Your task to perform on an android device: read, delete, or share a saved page in the chrome app Image 0: 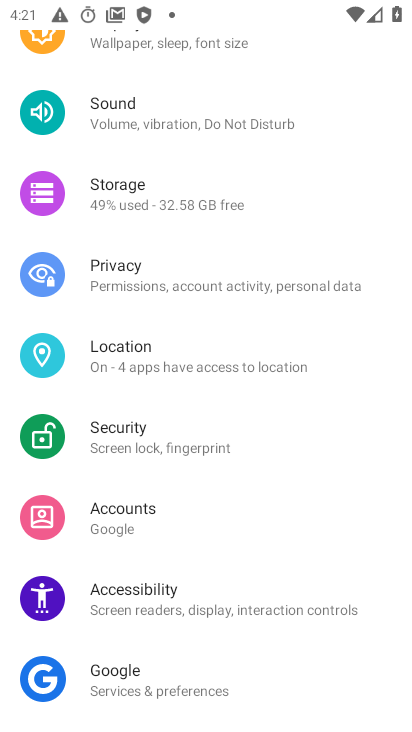
Step 0: press home button
Your task to perform on an android device: read, delete, or share a saved page in the chrome app Image 1: 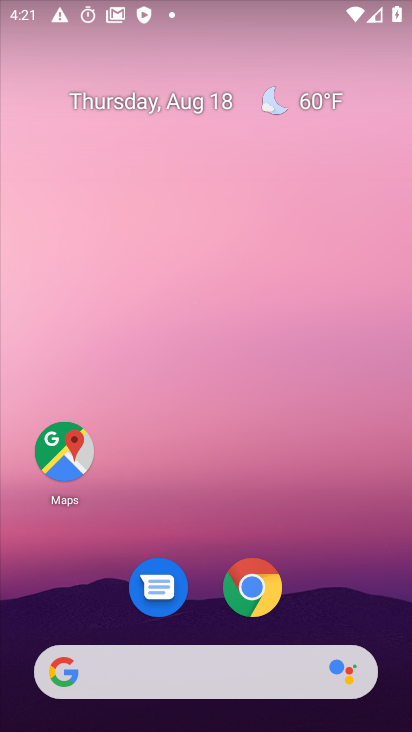
Step 1: drag from (364, 600) to (339, 96)
Your task to perform on an android device: read, delete, or share a saved page in the chrome app Image 2: 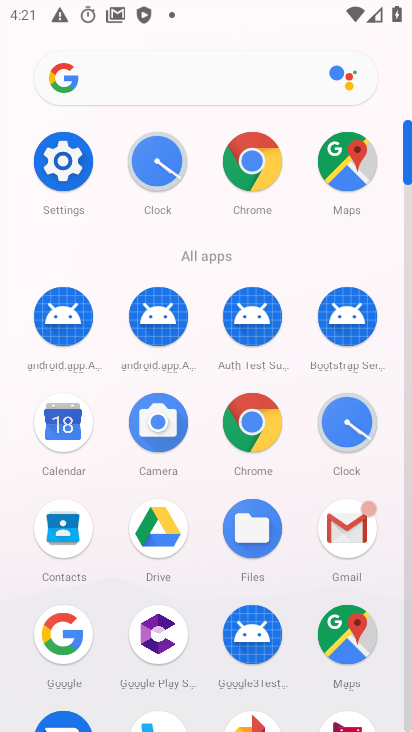
Step 2: click (270, 414)
Your task to perform on an android device: read, delete, or share a saved page in the chrome app Image 3: 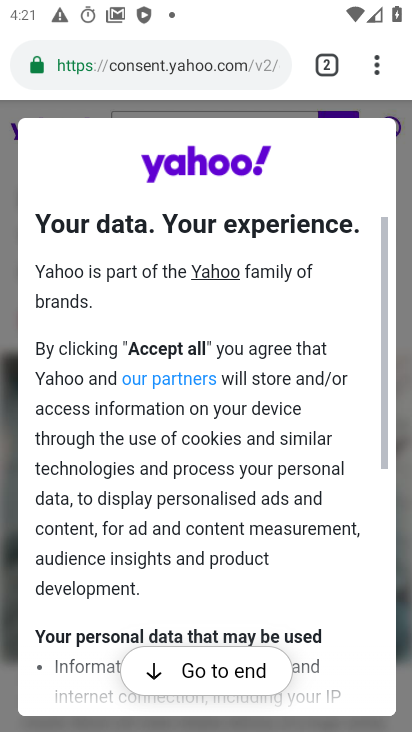
Step 3: drag from (289, 421) to (341, 162)
Your task to perform on an android device: read, delete, or share a saved page in the chrome app Image 4: 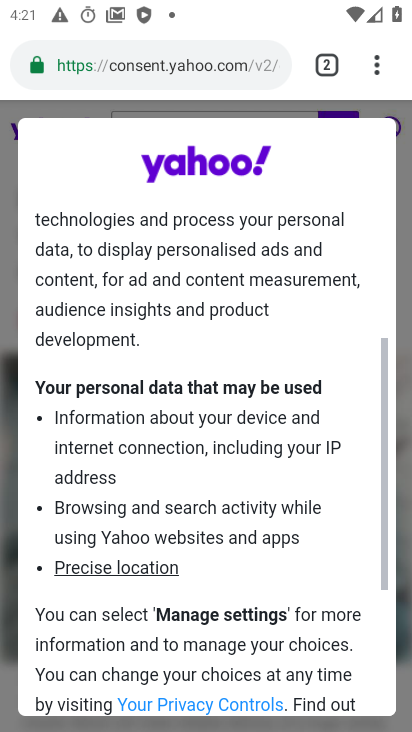
Step 4: drag from (257, 486) to (287, 116)
Your task to perform on an android device: read, delete, or share a saved page in the chrome app Image 5: 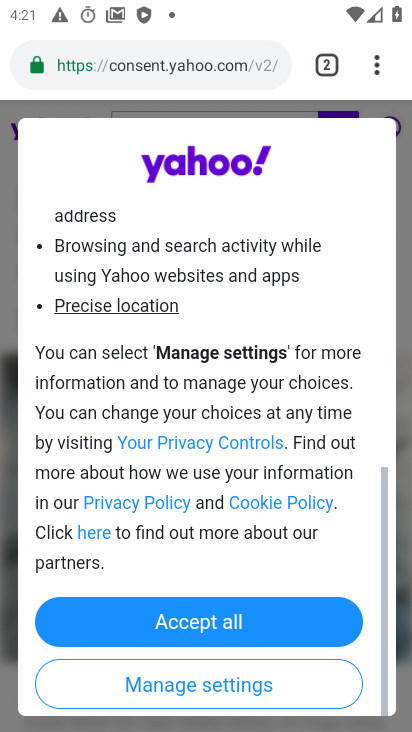
Step 5: drag from (369, 69) to (167, 64)
Your task to perform on an android device: read, delete, or share a saved page in the chrome app Image 6: 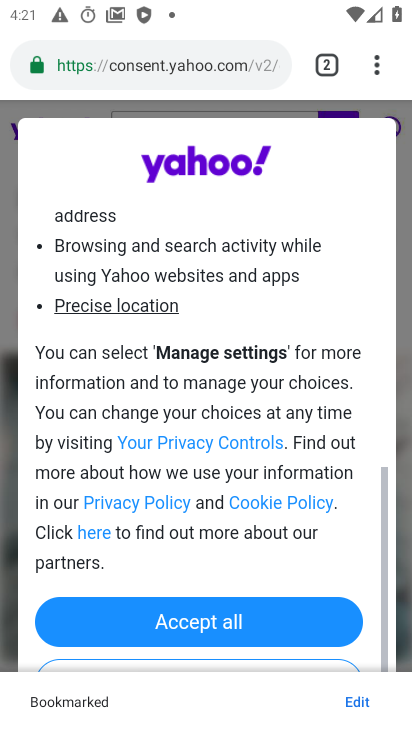
Step 6: drag from (380, 59) to (158, 62)
Your task to perform on an android device: read, delete, or share a saved page in the chrome app Image 7: 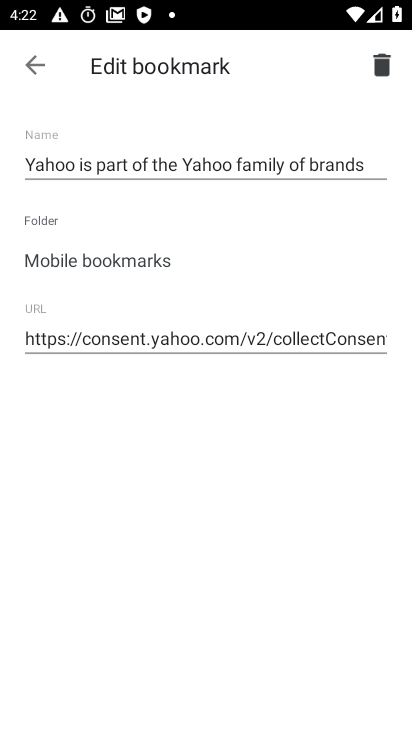
Step 7: click (376, 65)
Your task to perform on an android device: read, delete, or share a saved page in the chrome app Image 8: 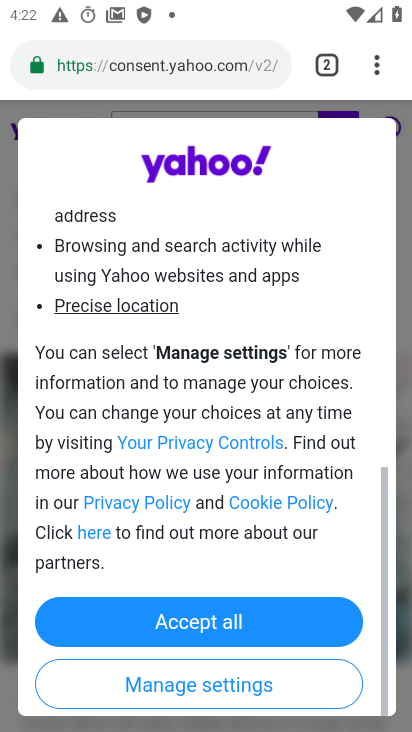
Step 8: task complete